Your task to perform on an android device: Search for usb-a on newegg.com, select the first entry, add it to the cart, then select checkout. Image 0: 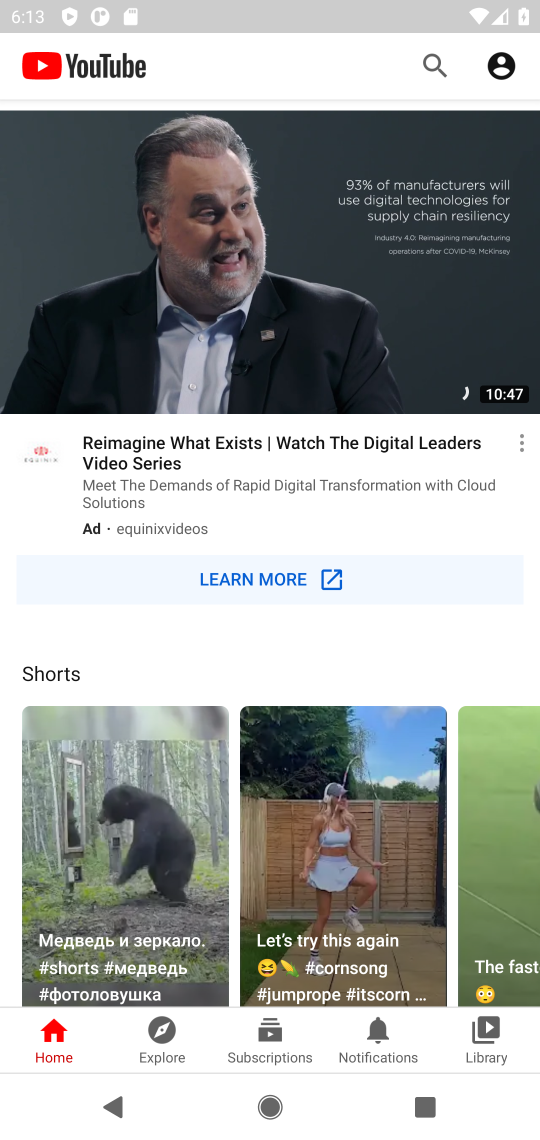
Step 0: press home button
Your task to perform on an android device: Search for usb-a on newegg.com, select the first entry, add it to the cart, then select checkout. Image 1: 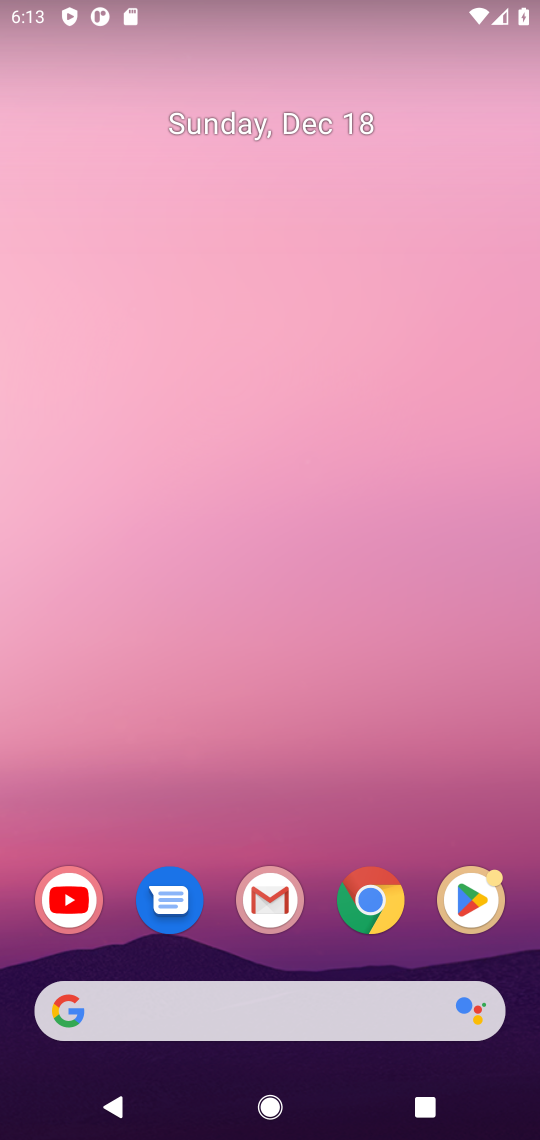
Step 1: click (364, 895)
Your task to perform on an android device: Search for usb-a on newegg.com, select the first entry, add it to the cart, then select checkout. Image 2: 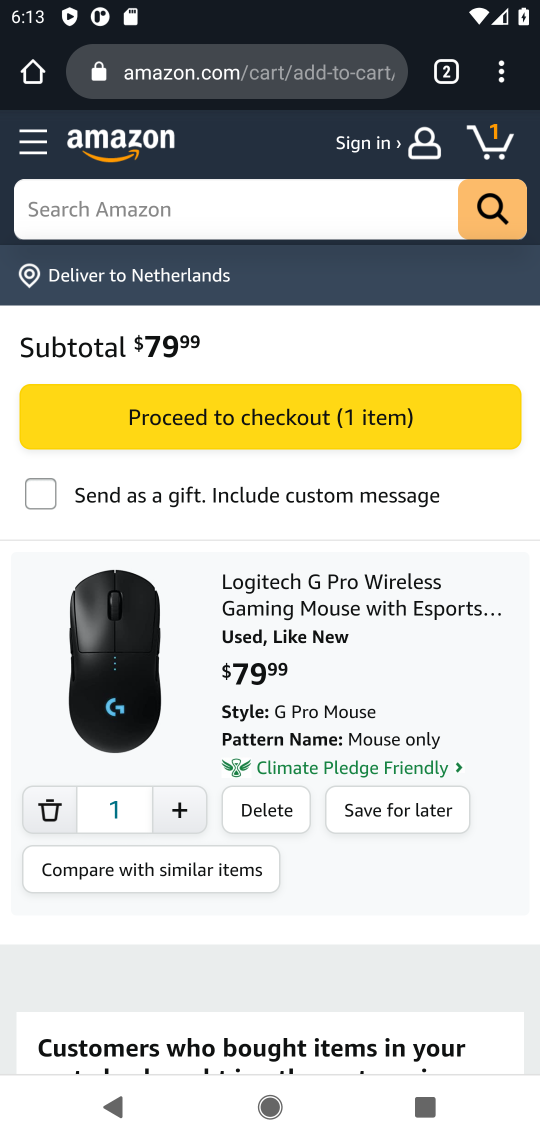
Step 2: click (446, 80)
Your task to perform on an android device: Search for usb-a on newegg.com, select the first entry, add it to the cart, then select checkout. Image 3: 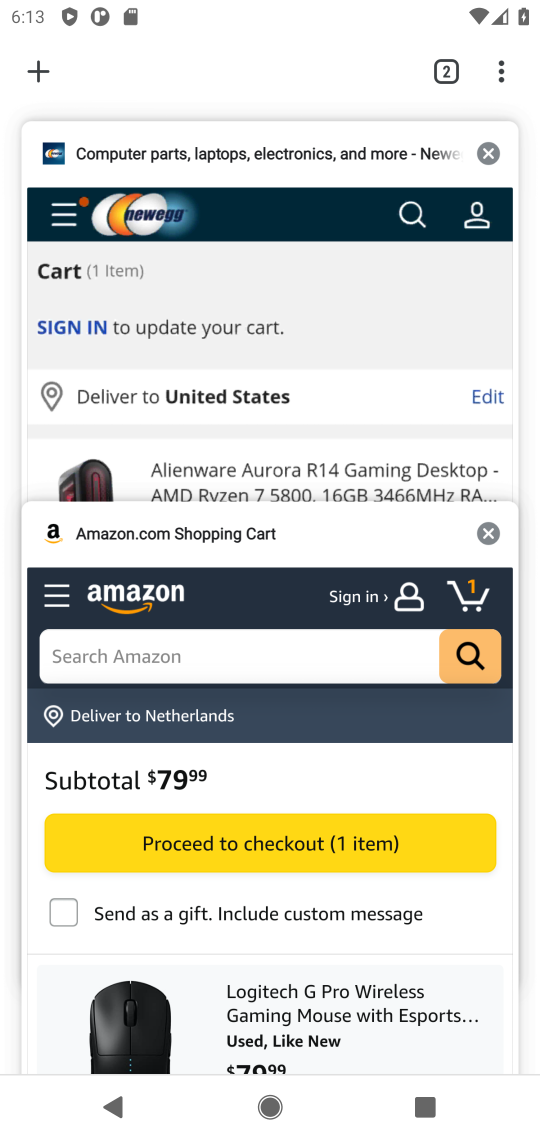
Step 3: click (220, 315)
Your task to perform on an android device: Search for usb-a on newegg.com, select the first entry, add it to the cart, then select checkout. Image 4: 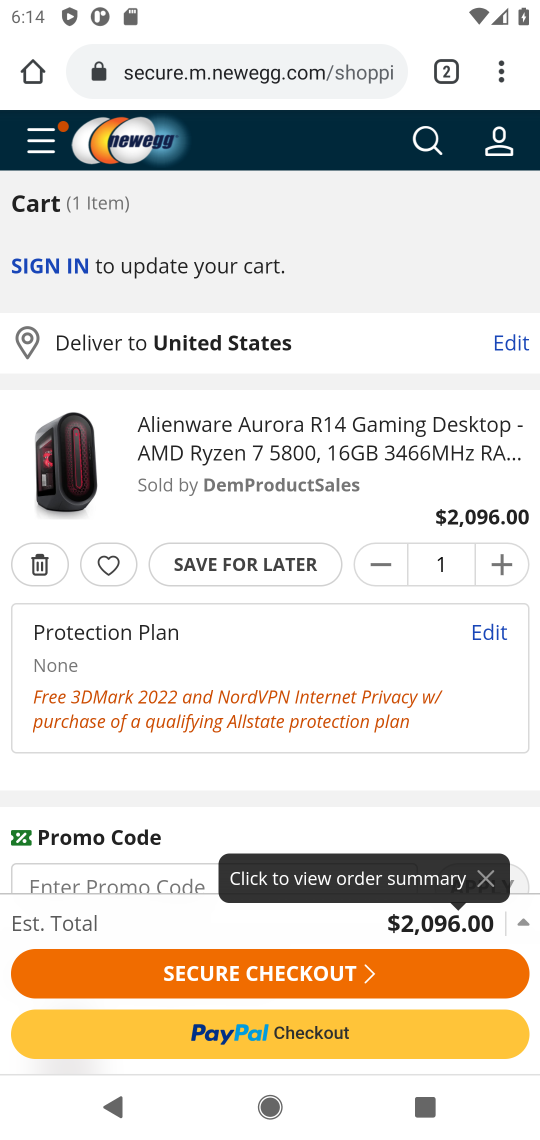
Step 4: click (420, 142)
Your task to perform on an android device: Search for usb-a on newegg.com, select the first entry, add it to the cart, then select checkout. Image 5: 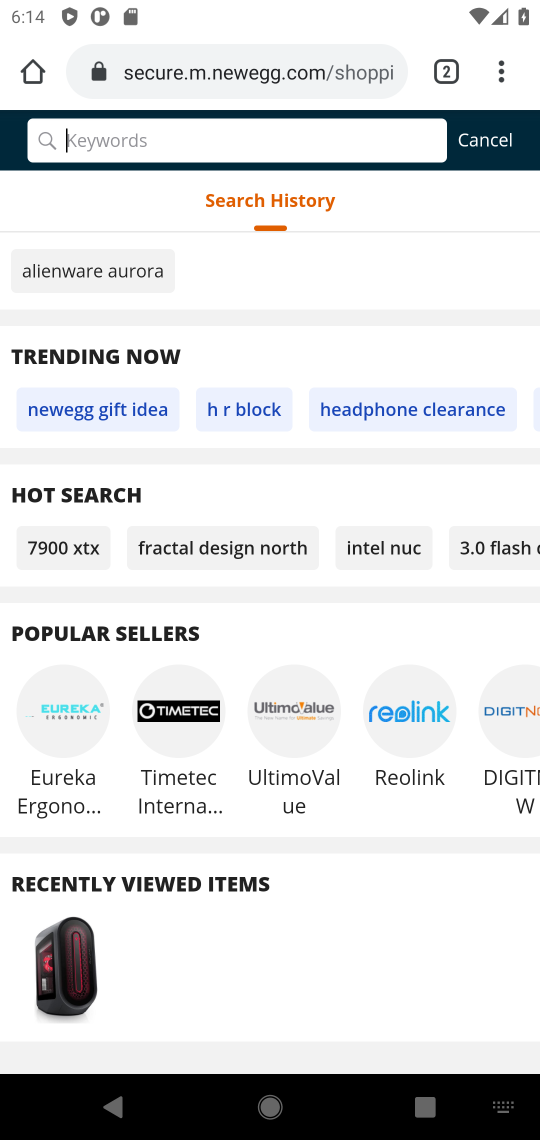
Step 5: type "usb-a"
Your task to perform on an android device: Search for usb-a on newegg.com, select the first entry, add it to the cart, then select checkout. Image 6: 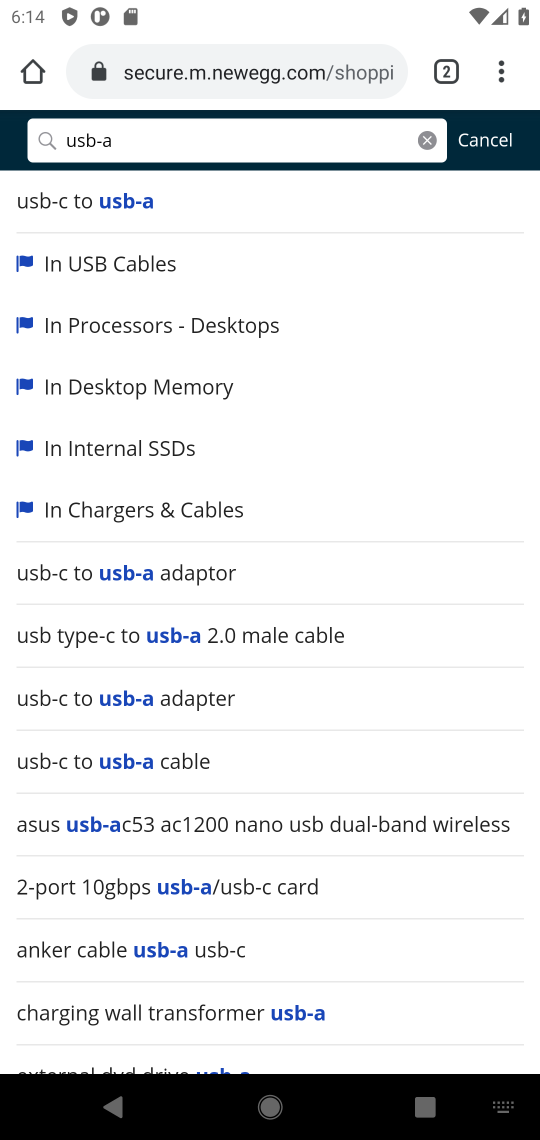
Step 6: click (108, 263)
Your task to perform on an android device: Search for usb-a on newegg.com, select the first entry, add it to the cart, then select checkout. Image 7: 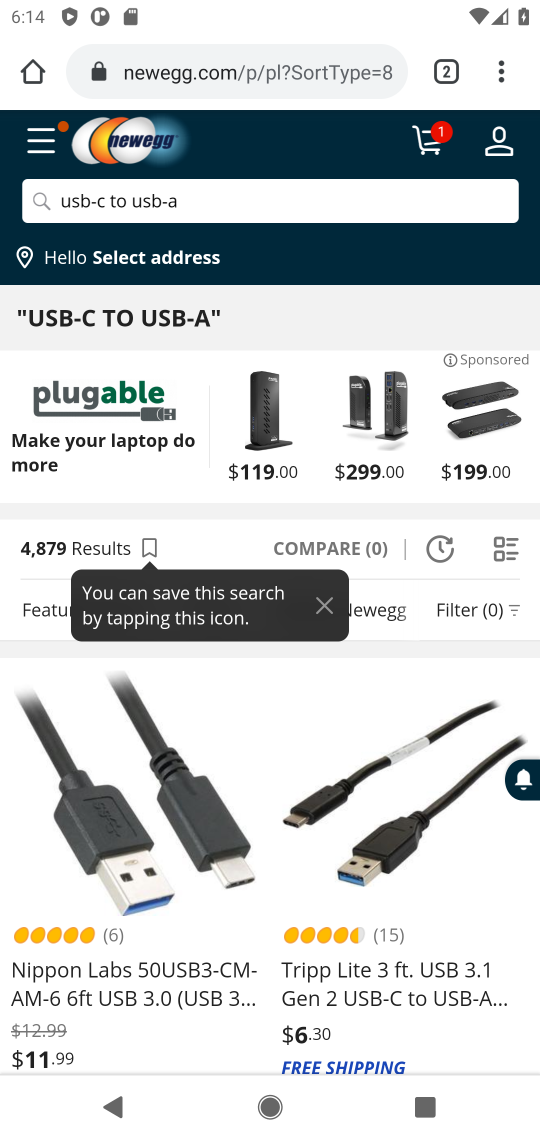
Step 7: click (213, 1002)
Your task to perform on an android device: Search for usb-a on newegg.com, select the first entry, add it to the cart, then select checkout. Image 8: 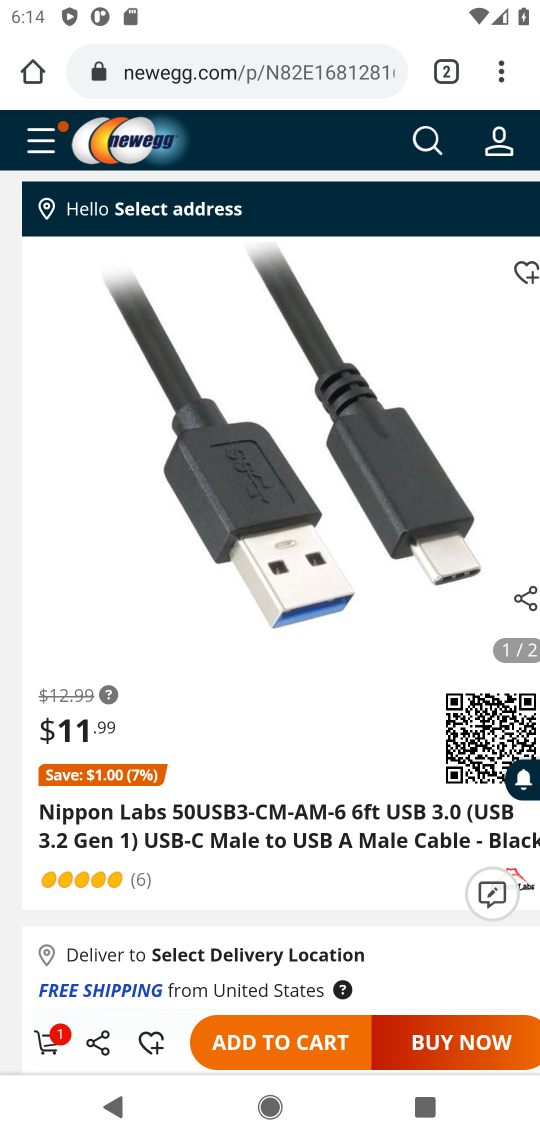
Step 8: click (262, 1051)
Your task to perform on an android device: Search for usb-a on newegg.com, select the first entry, add it to the cart, then select checkout. Image 9: 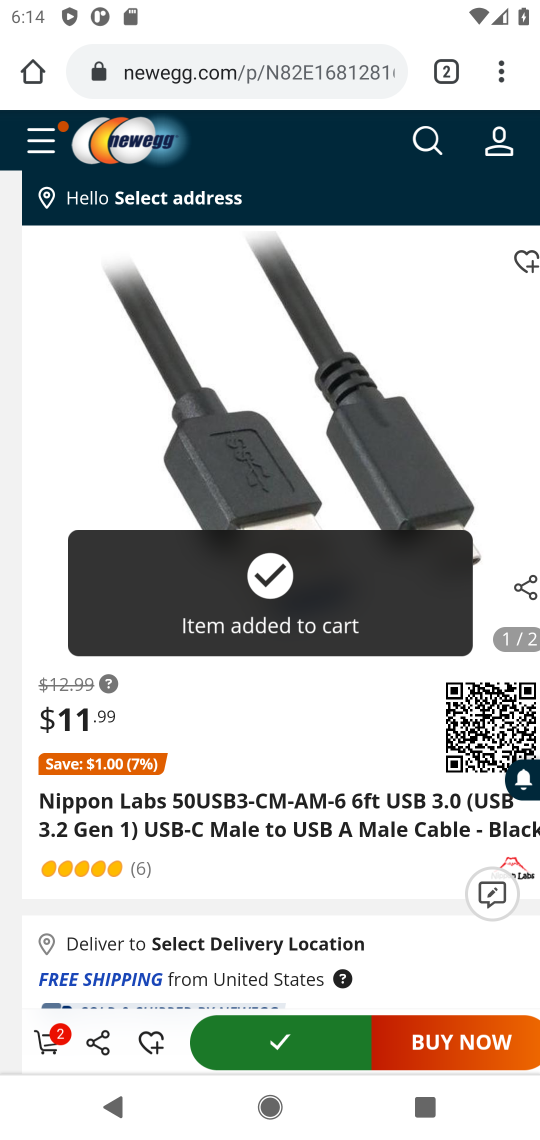
Step 9: task complete